Your task to perform on an android device: Open Yahoo.com Image 0: 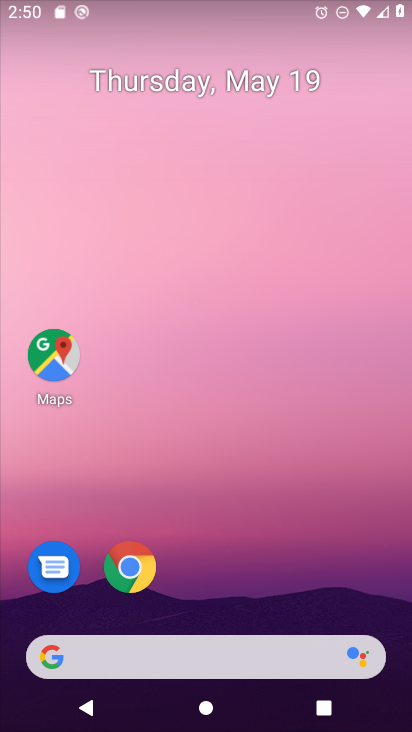
Step 0: click (243, 658)
Your task to perform on an android device: Open Yahoo.com Image 1: 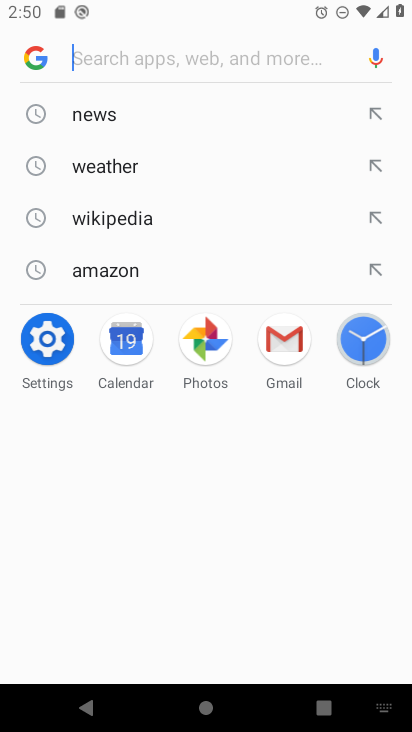
Step 1: type "yahoo.com"
Your task to perform on an android device: Open Yahoo.com Image 2: 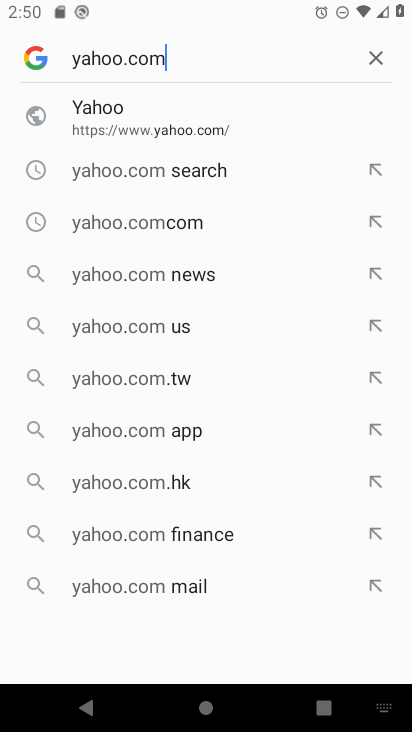
Step 2: click (96, 110)
Your task to perform on an android device: Open Yahoo.com Image 3: 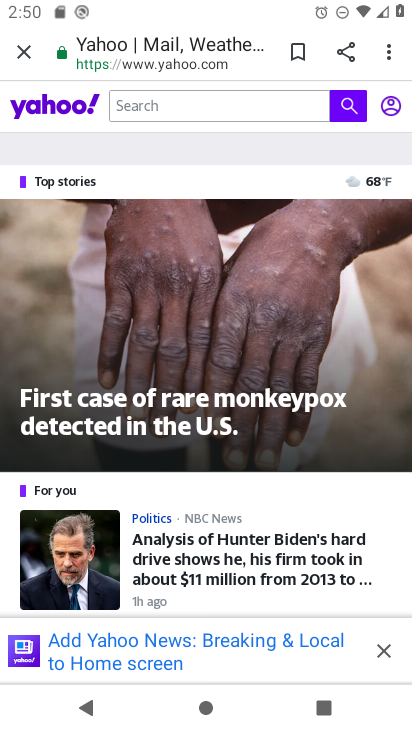
Step 3: task complete